Your task to perform on an android device: turn notification dots on Image 0: 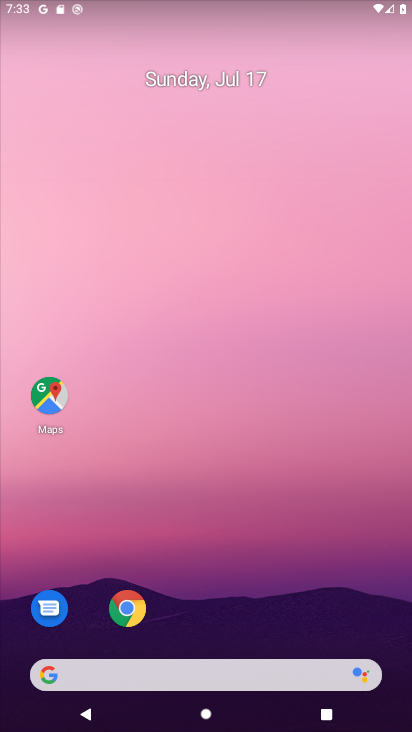
Step 0: drag from (172, 518) to (188, 37)
Your task to perform on an android device: turn notification dots on Image 1: 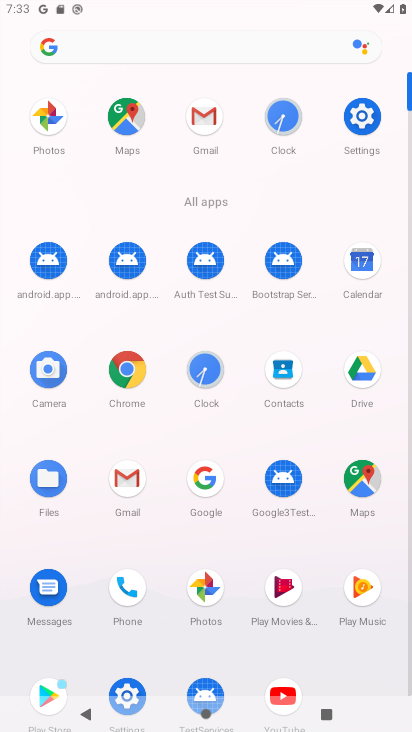
Step 1: click (362, 119)
Your task to perform on an android device: turn notification dots on Image 2: 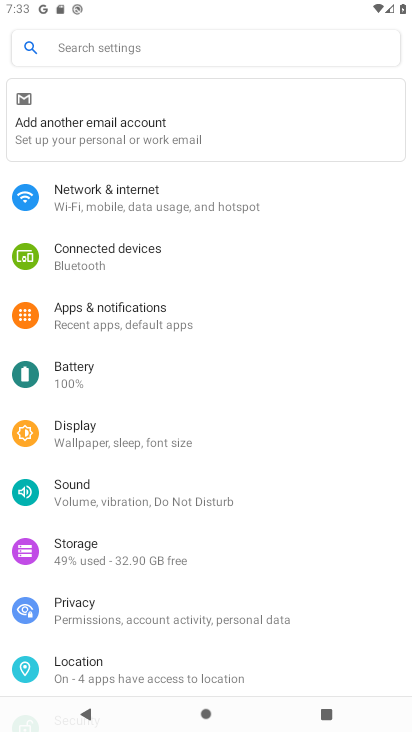
Step 2: click (92, 314)
Your task to perform on an android device: turn notification dots on Image 3: 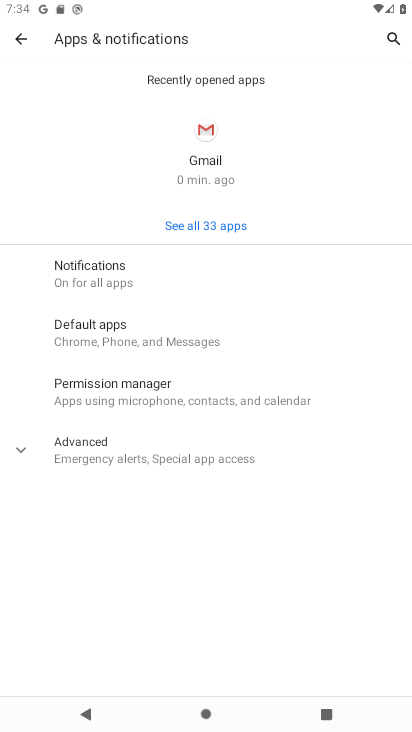
Step 3: click (97, 276)
Your task to perform on an android device: turn notification dots on Image 4: 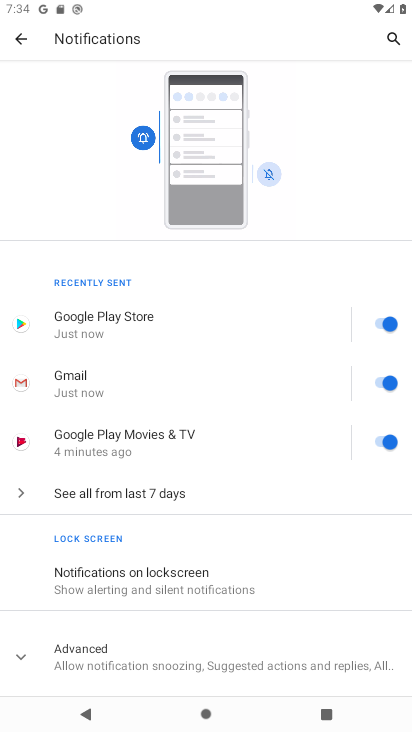
Step 4: click (112, 659)
Your task to perform on an android device: turn notification dots on Image 5: 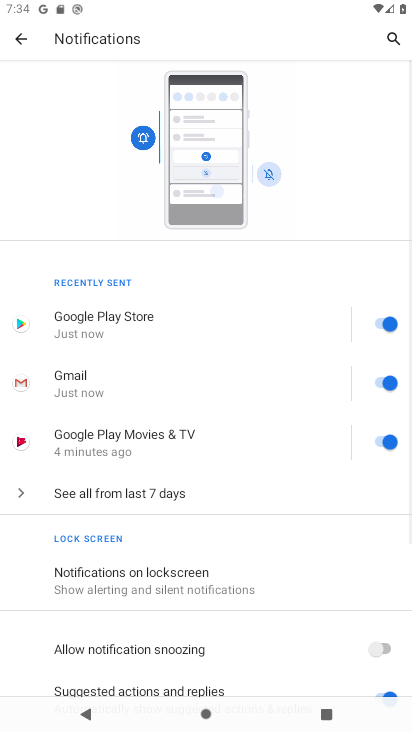
Step 5: task complete